Your task to perform on an android device: Show me productivity apps on the Play Store Image 0: 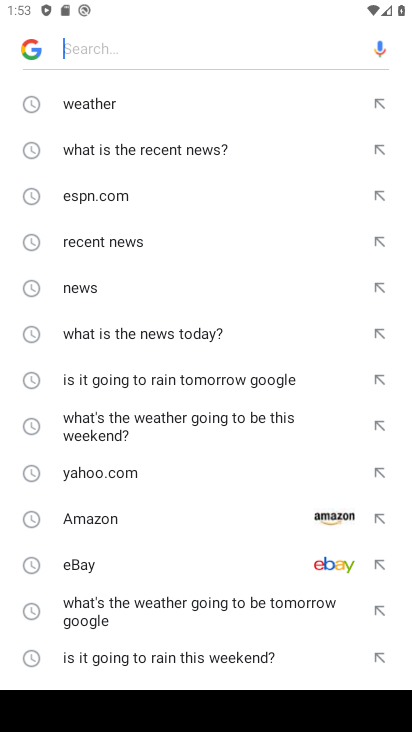
Step 0: press back button
Your task to perform on an android device: Show me productivity apps on the Play Store Image 1: 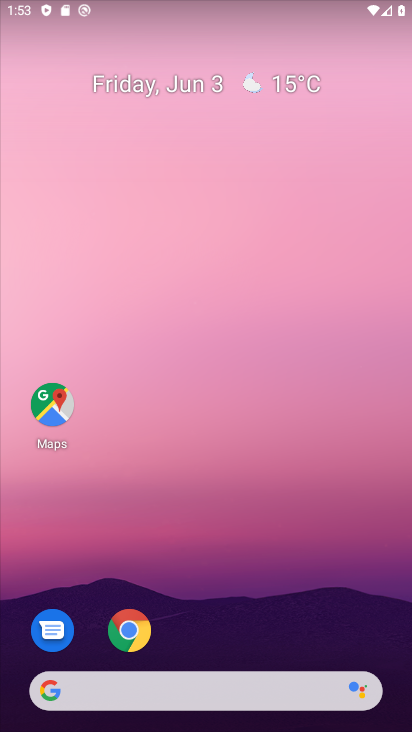
Step 1: drag from (236, 610) to (203, 103)
Your task to perform on an android device: Show me productivity apps on the Play Store Image 2: 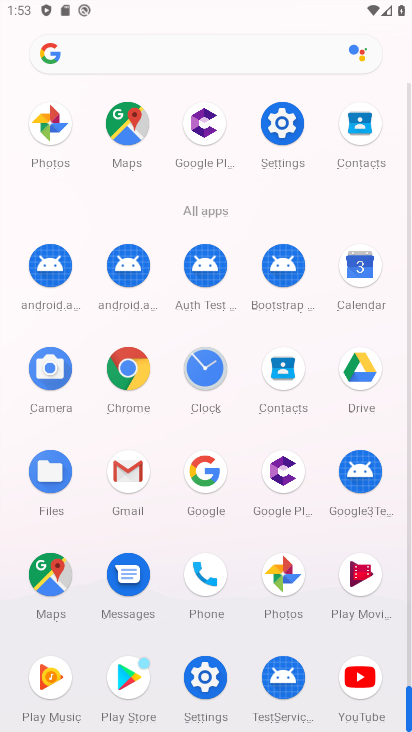
Step 2: drag from (10, 522) to (10, 229)
Your task to perform on an android device: Show me productivity apps on the Play Store Image 3: 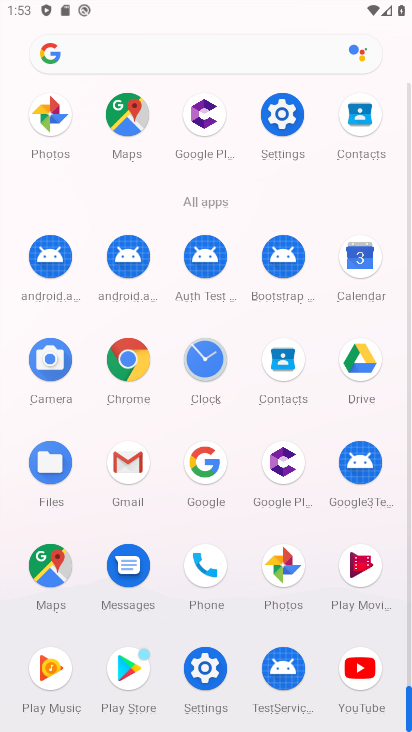
Step 3: drag from (13, 515) to (8, 218)
Your task to perform on an android device: Show me productivity apps on the Play Store Image 4: 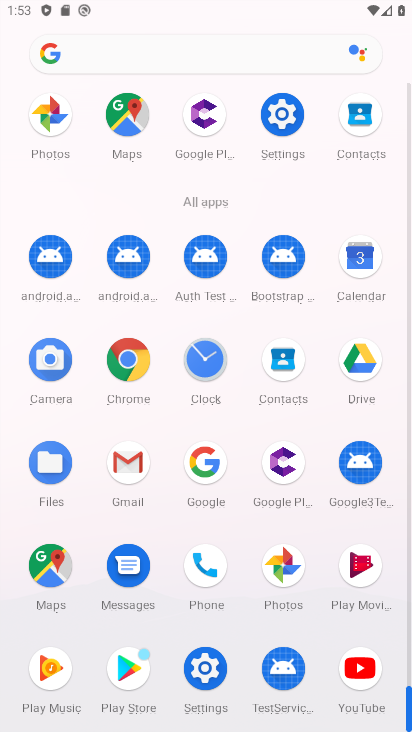
Step 4: click (130, 667)
Your task to perform on an android device: Show me productivity apps on the Play Store Image 5: 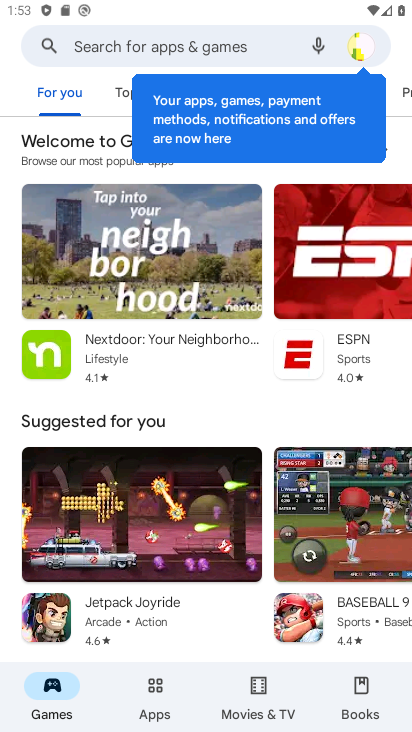
Step 5: click (150, 698)
Your task to perform on an android device: Show me productivity apps on the Play Store Image 6: 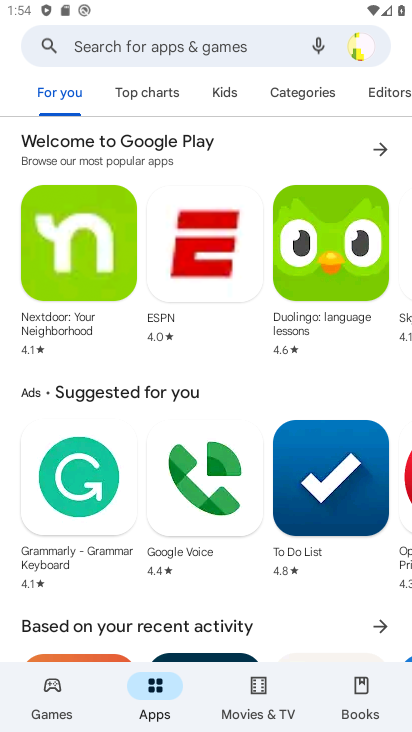
Step 6: drag from (280, 98) to (180, 96)
Your task to perform on an android device: Show me productivity apps on the Play Store Image 7: 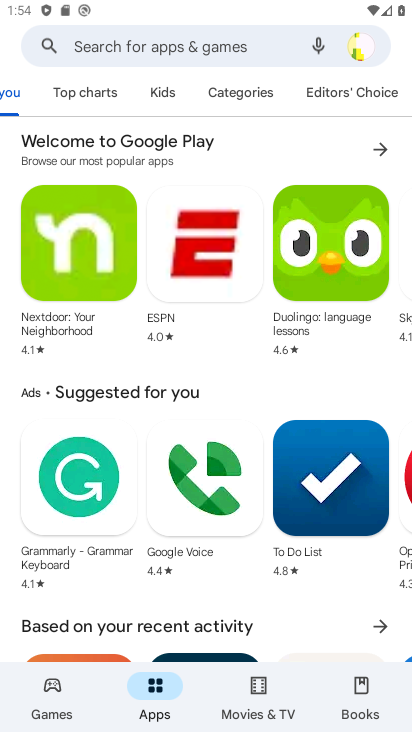
Step 7: click (243, 93)
Your task to perform on an android device: Show me productivity apps on the Play Store Image 8: 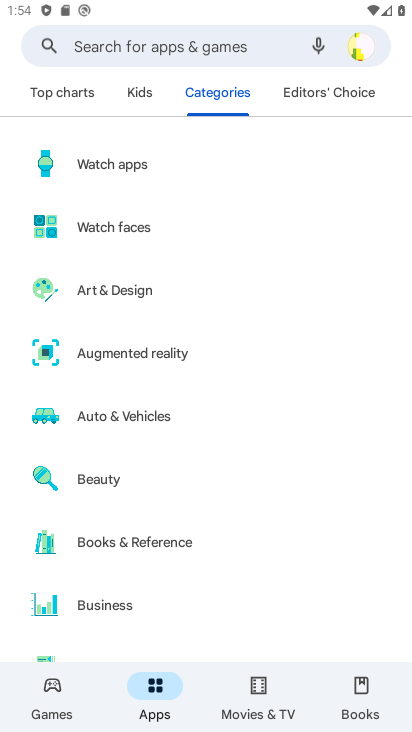
Step 8: drag from (213, 285) to (229, 138)
Your task to perform on an android device: Show me productivity apps on the Play Store Image 9: 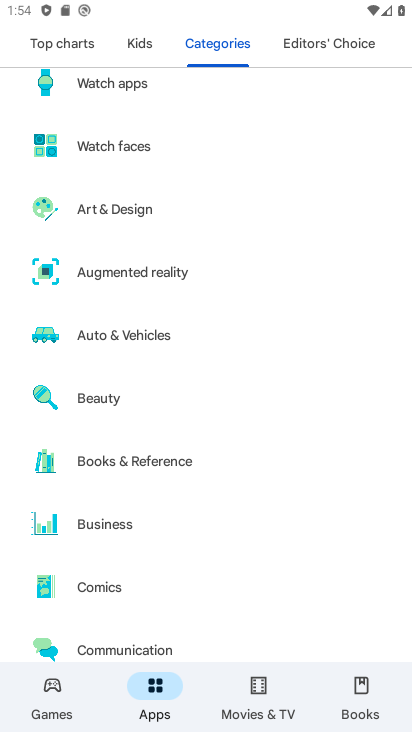
Step 9: drag from (202, 545) to (237, 90)
Your task to perform on an android device: Show me productivity apps on the Play Store Image 10: 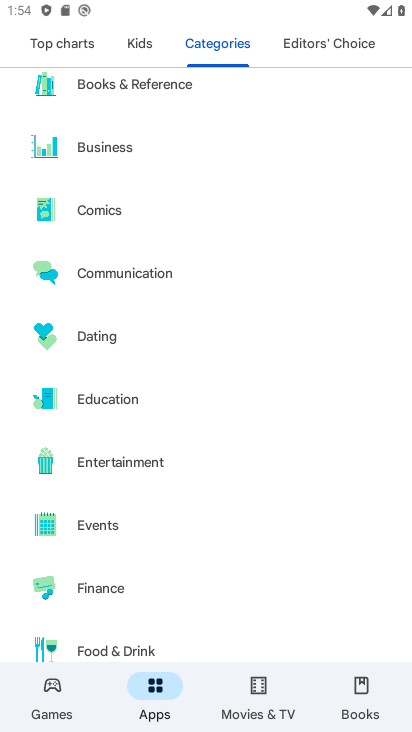
Step 10: drag from (196, 535) to (201, 82)
Your task to perform on an android device: Show me productivity apps on the Play Store Image 11: 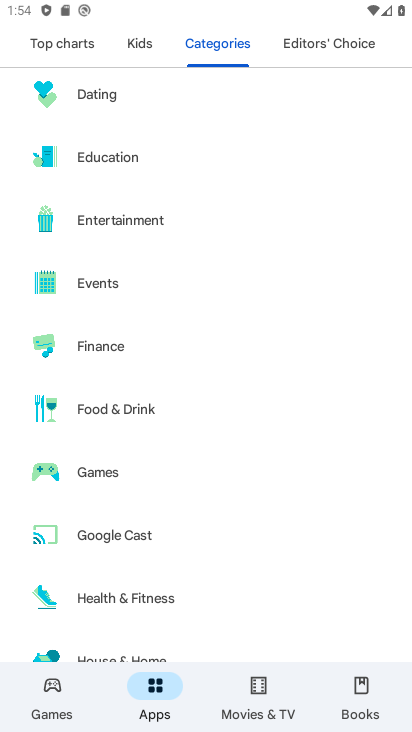
Step 11: drag from (220, 553) to (271, 99)
Your task to perform on an android device: Show me productivity apps on the Play Store Image 12: 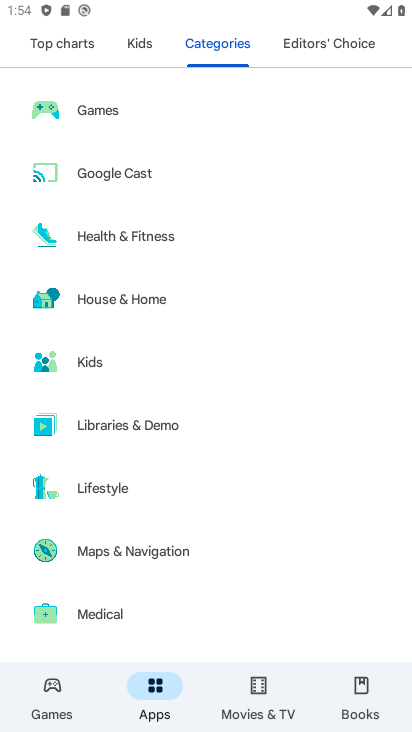
Step 12: drag from (195, 506) to (213, 116)
Your task to perform on an android device: Show me productivity apps on the Play Store Image 13: 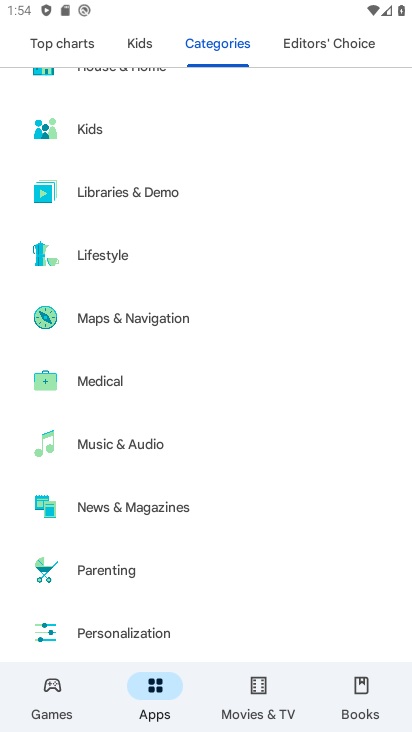
Step 13: drag from (176, 553) to (238, 151)
Your task to perform on an android device: Show me productivity apps on the Play Store Image 14: 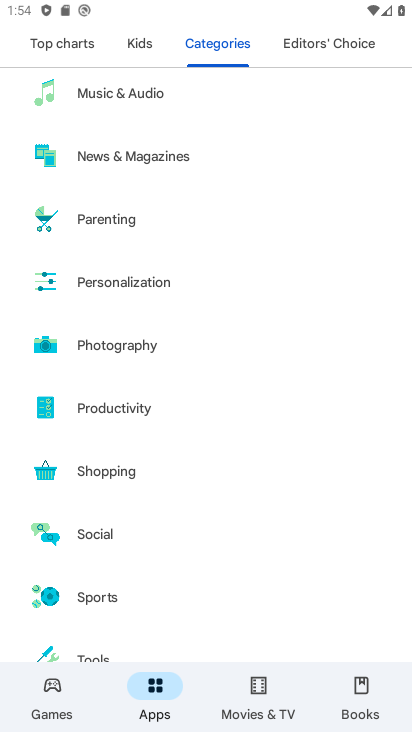
Step 14: click (124, 343)
Your task to perform on an android device: Show me productivity apps on the Play Store Image 15: 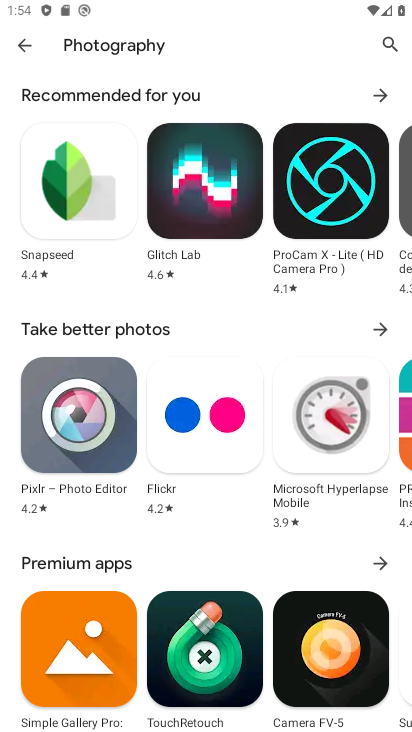
Step 15: task complete